Your task to perform on an android device: add a label to a message in the gmail app Image 0: 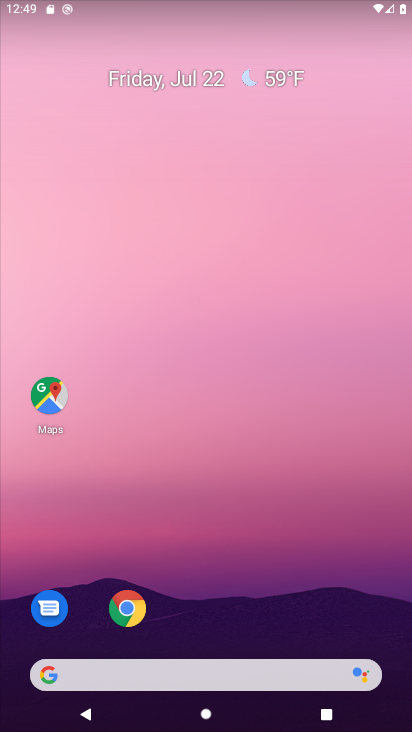
Step 0: drag from (196, 509) to (262, 6)
Your task to perform on an android device: add a label to a message in the gmail app Image 1: 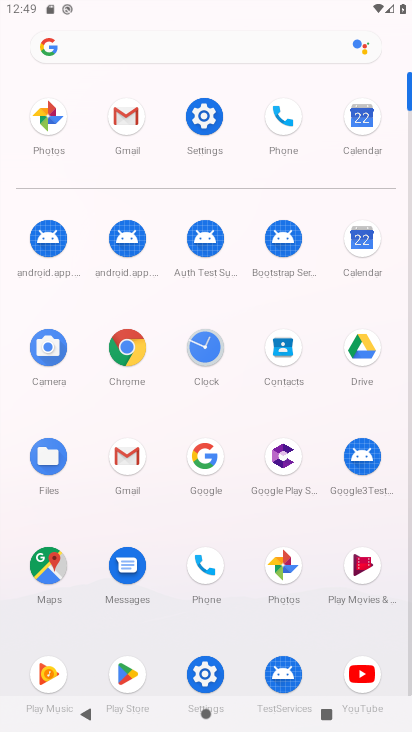
Step 1: click (120, 464)
Your task to perform on an android device: add a label to a message in the gmail app Image 2: 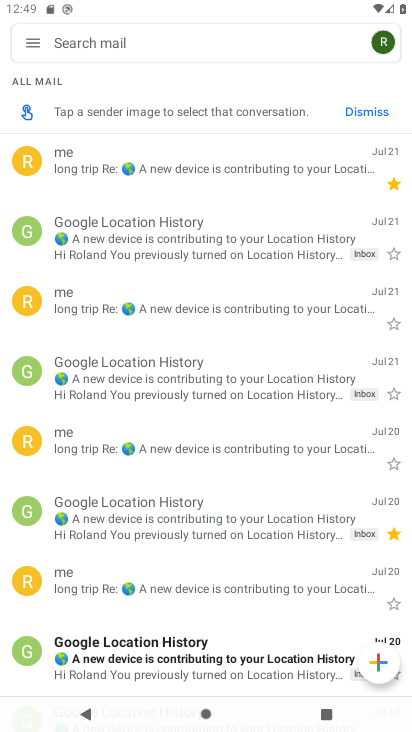
Step 2: click (24, 155)
Your task to perform on an android device: add a label to a message in the gmail app Image 3: 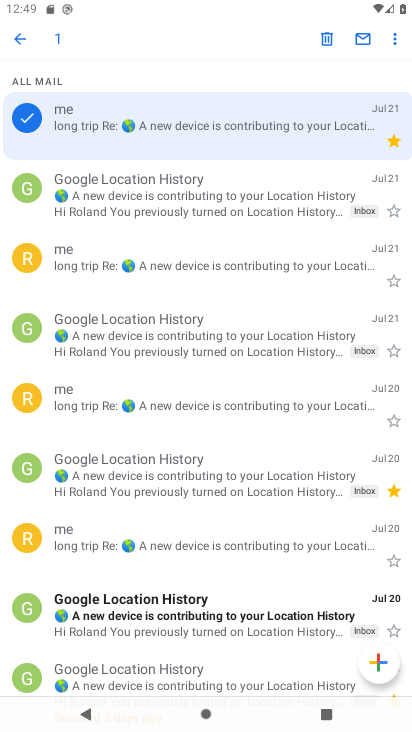
Step 3: click (392, 39)
Your task to perform on an android device: add a label to a message in the gmail app Image 4: 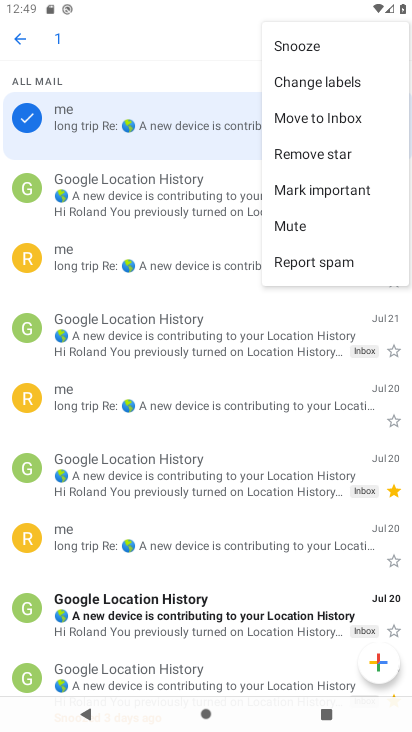
Step 4: click (348, 84)
Your task to perform on an android device: add a label to a message in the gmail app Image 5: 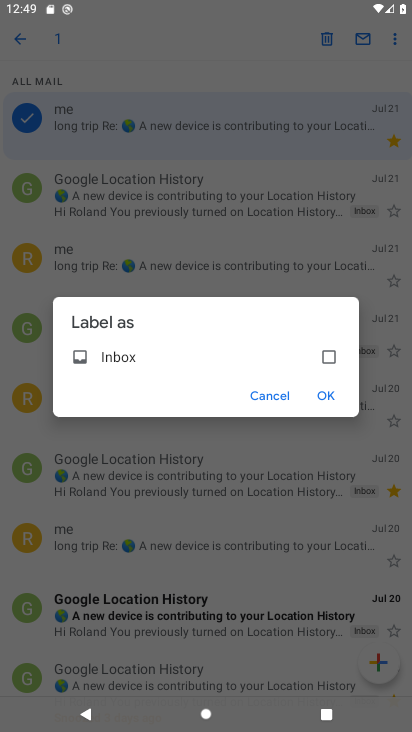
Step 5: click (330, 351)
Your task to perform on an android device: add a label to a message in the gmail app Image 6: 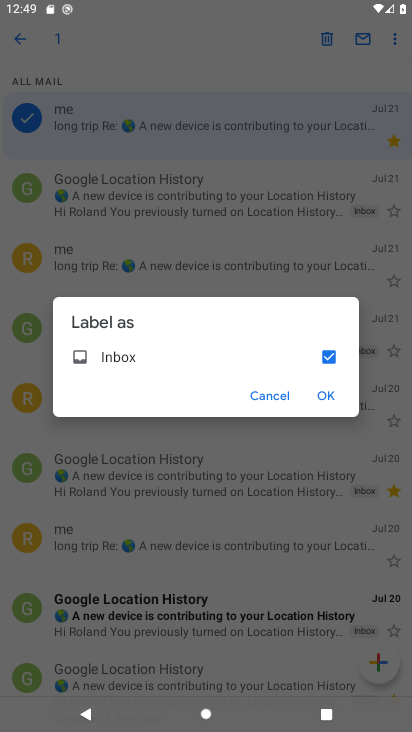
Step 6: click (322, 394)
Your task to perform on an android device: add a label to a message in the gmail app Image 7: 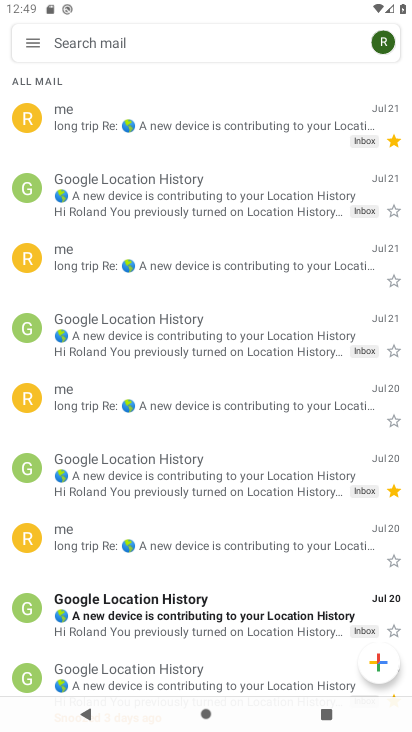
Step 7: task complete